Your task to perform on an android device: Add "razer thresher" to the cart on costco, then select checkout. Image 0: 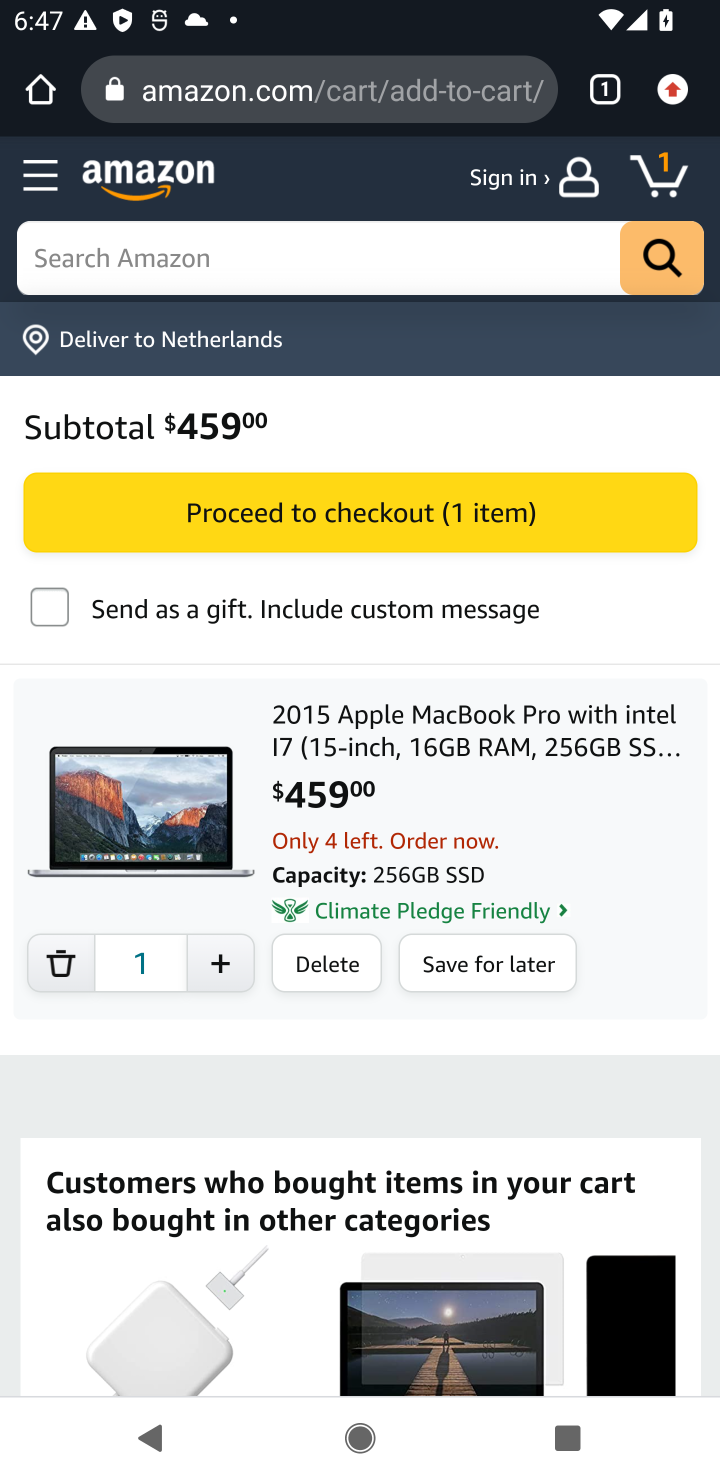
Step 0: click (258, 111)
Your task to perform on an android device: Add "razer thresher" to the cart on costco, then select checkout. Image 1: 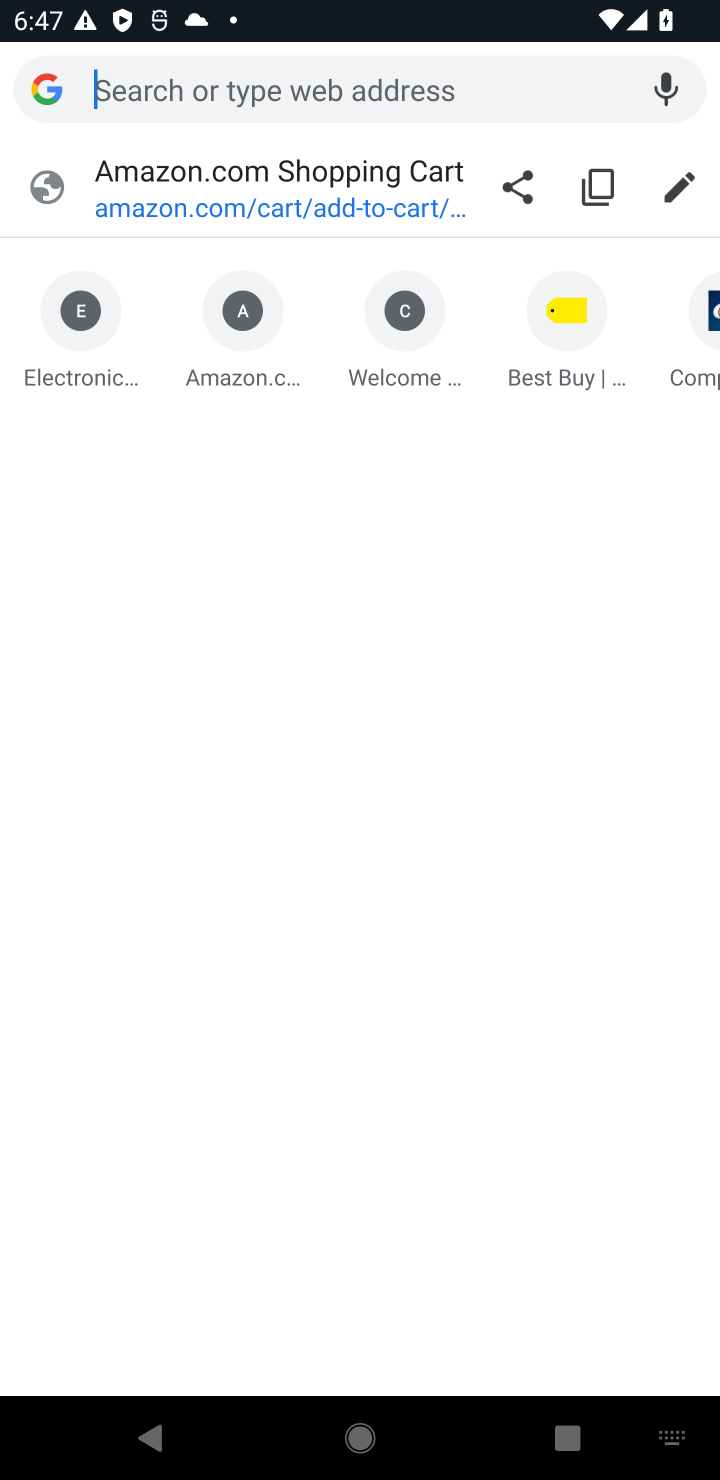
Step 1: type "costco.com"
Your task to perform on an android device: Add "razer thresher" to the cart on costco, then select checkout. Image 2: 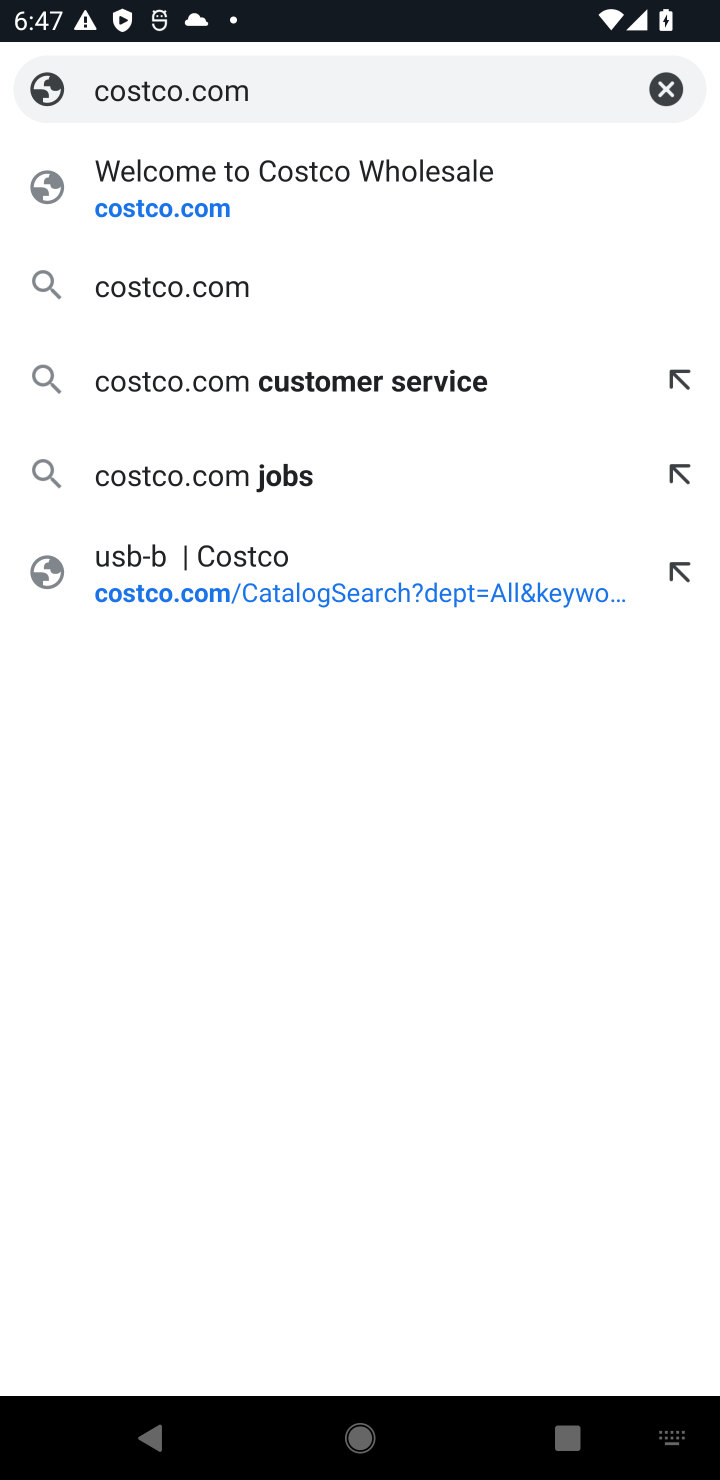
Step 2: click (135, 196)
Your task to perform on an android device: Add "razer thresher" to the cart on costco, then select checkout. Image 3: 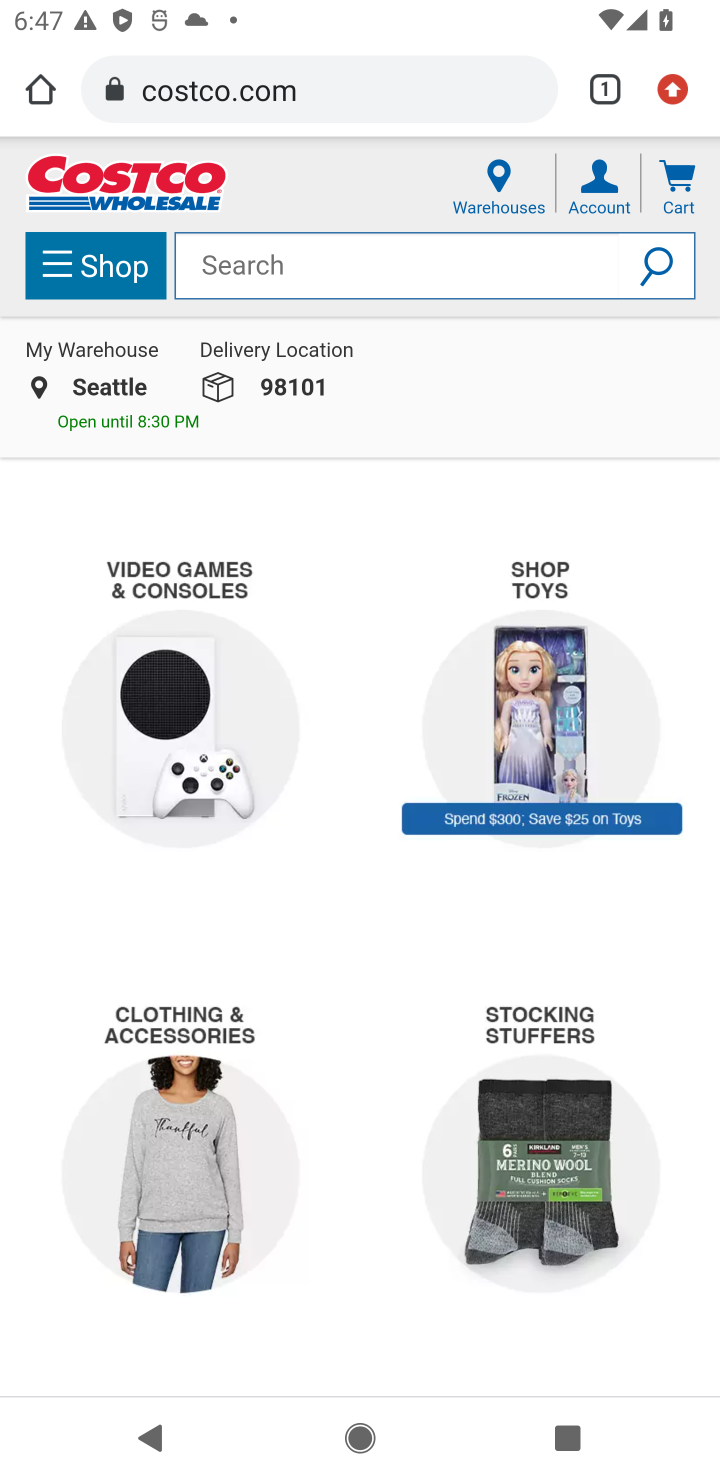
Step 3: click (266, 267)
Your task to perform on an android device: Add "razer thresher" to the cart on costco, then select checkout. Image 4: 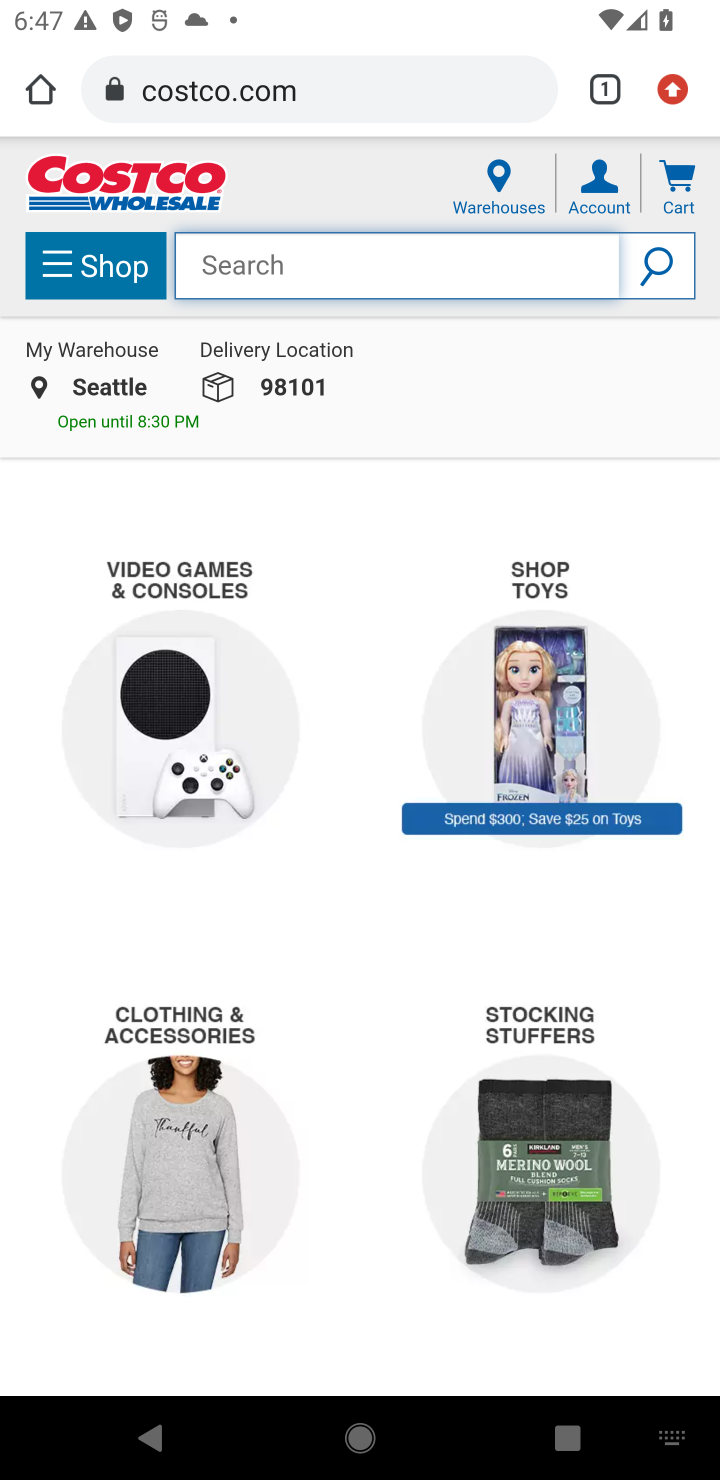
Step 4: type "razer thresher"
Your task to perform on an android device: Add "razer thresher" to the cart on costco, then select checkout. Image 5: 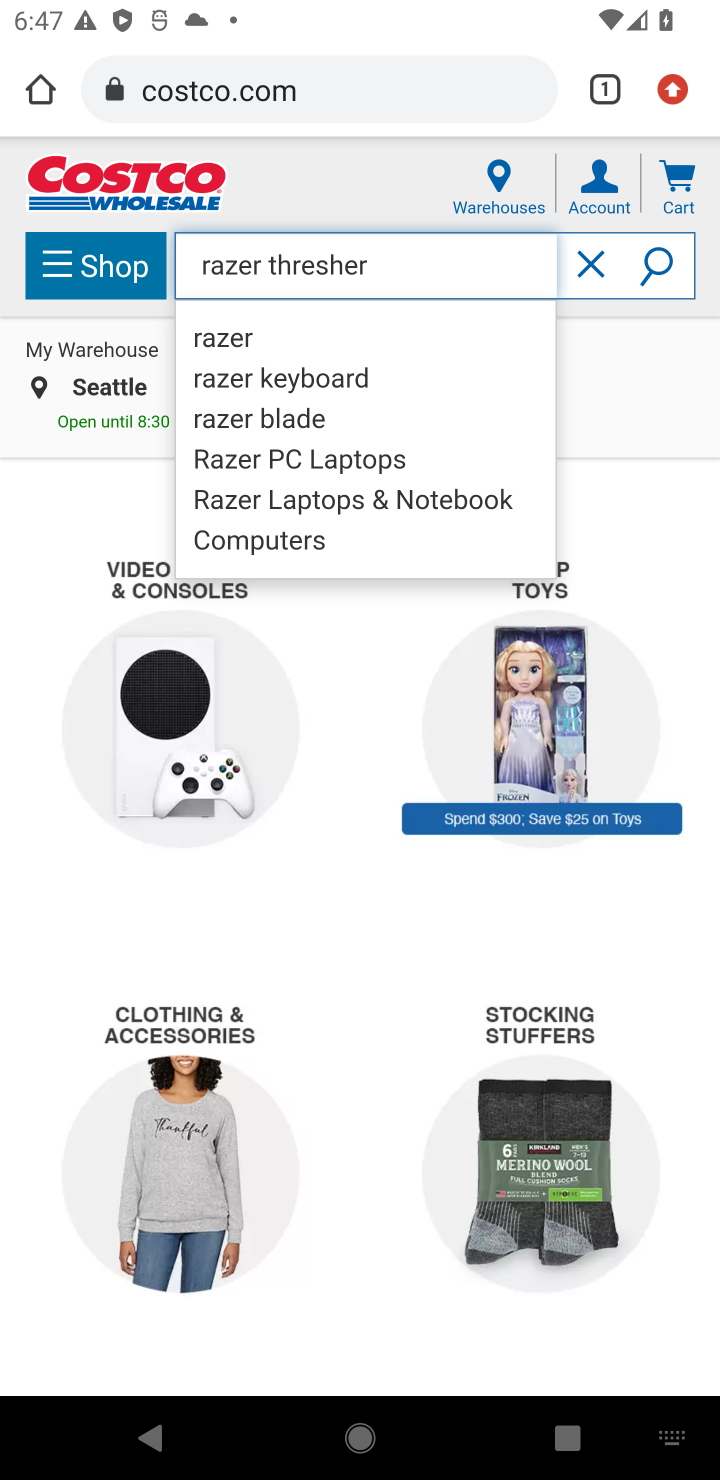
Step 5: click (653, 278)
Your task to perform on an android device: Add "razer thresher" to the cart on costco, then select checkout. Image 6: 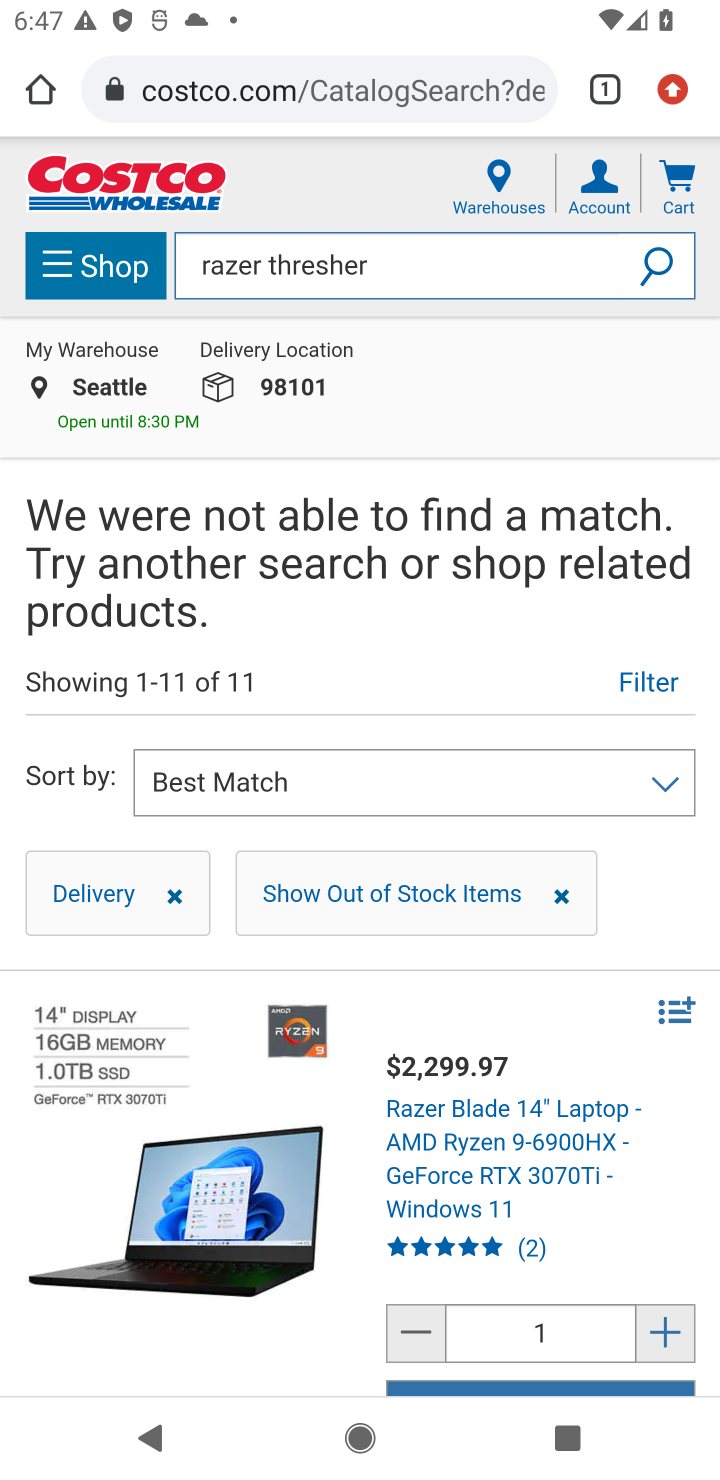
Step 6: task complete